Your task to perform on an android device: open app "DoorDash - Dasher" (install if not already installed) and enter user name: "resistor@inbox.com" and password: "cholera" Image 0: 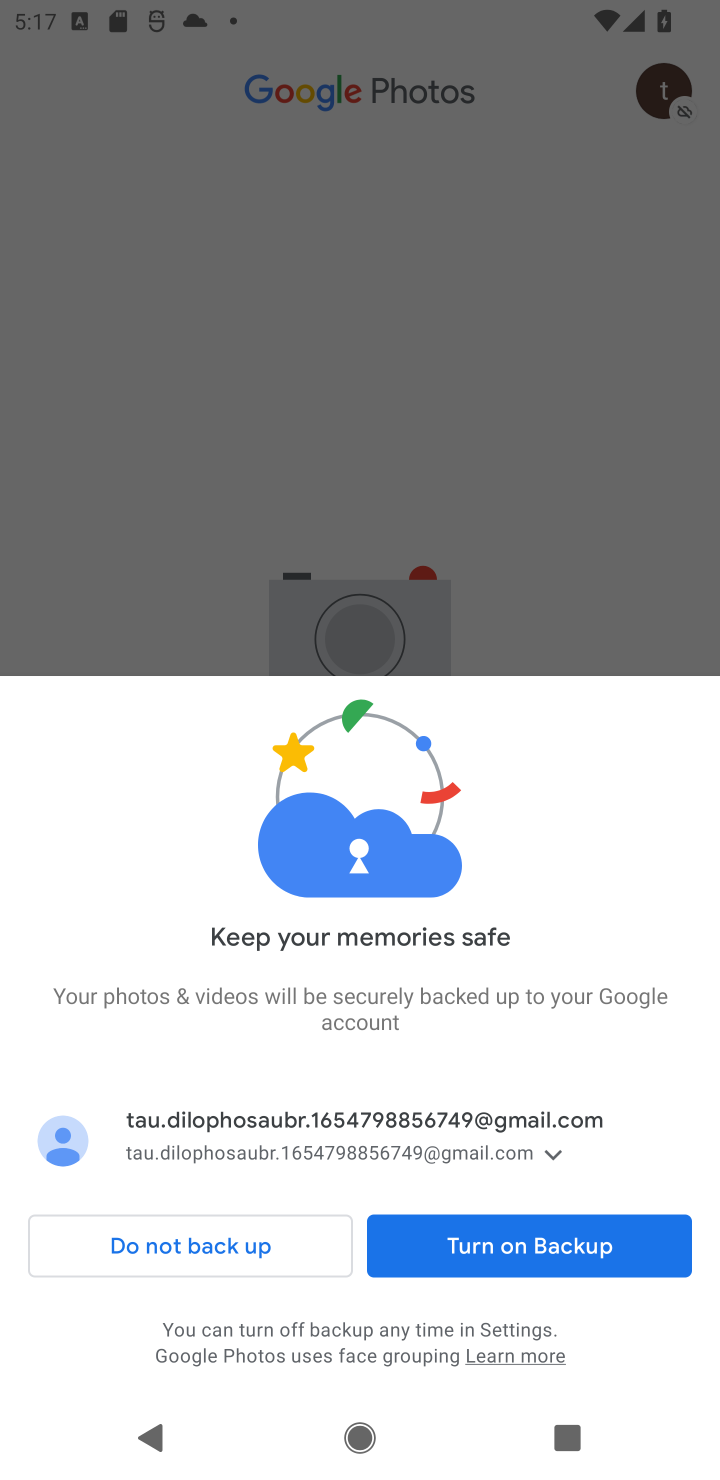
Step 0: press home button
Your task to perform on an android device: open app "DoorDash - Dasher" (install if not already installed) and enter user name: "resistor@inbox.com" and password: "cholera" Image 1: 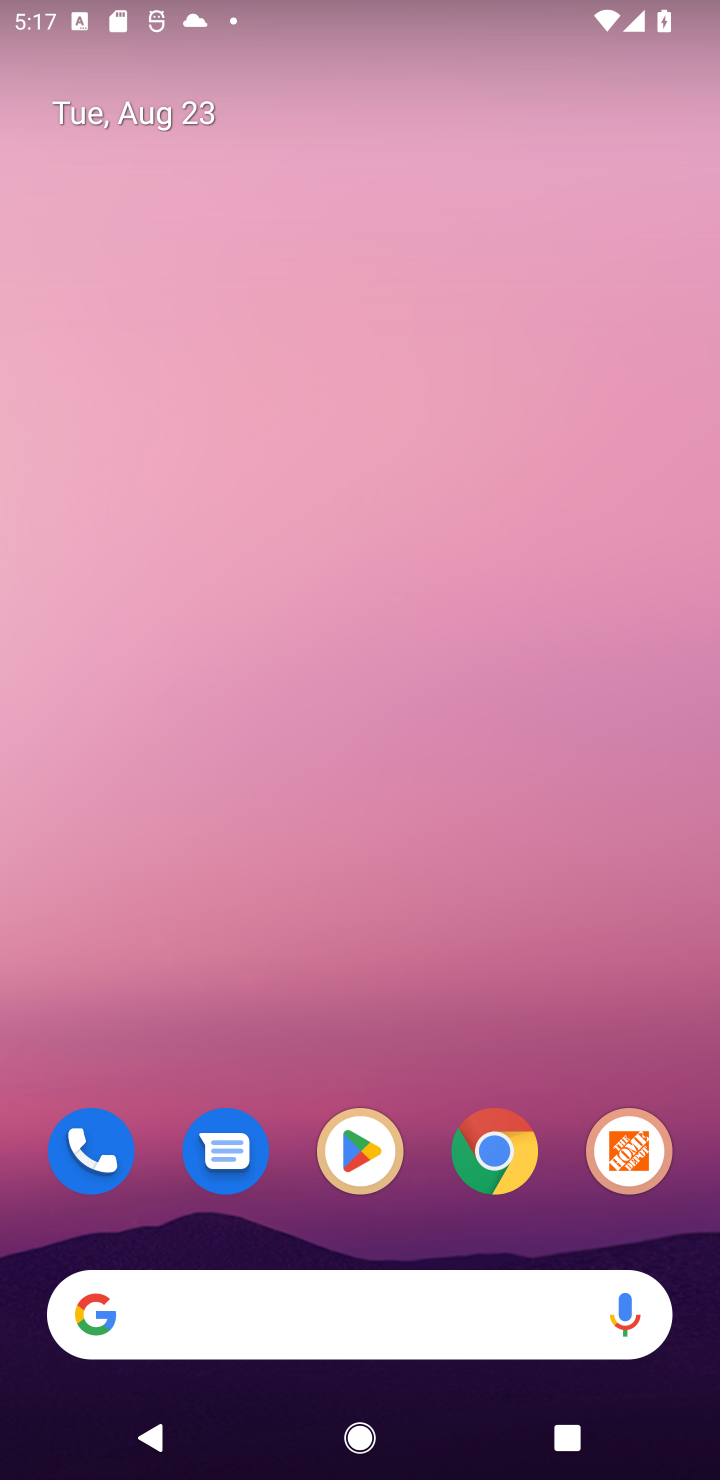
Step 1: click (370, 1149)
Your task to perform on an android device: open app "DoorDash - Dasher" (install if not already installed) and enter user name: "resistor@inbox.com" and password: "cholera" Image 2: 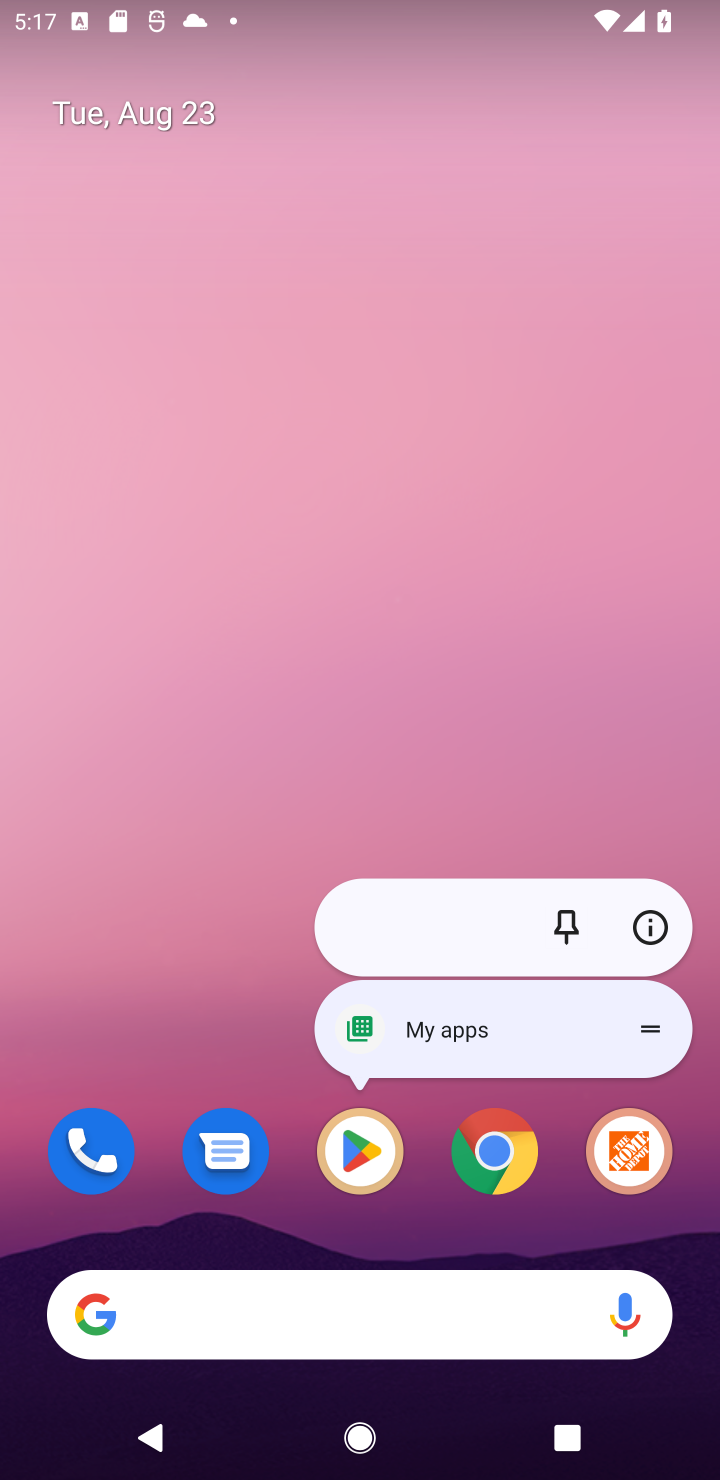
Step 2: click (351, 1158)
Your task to perform on an android device: open app "DoorDash - Dasher" (install if not already installed) and enter user name: "resistor@inbox.com" and password: "cholera" Image 3: 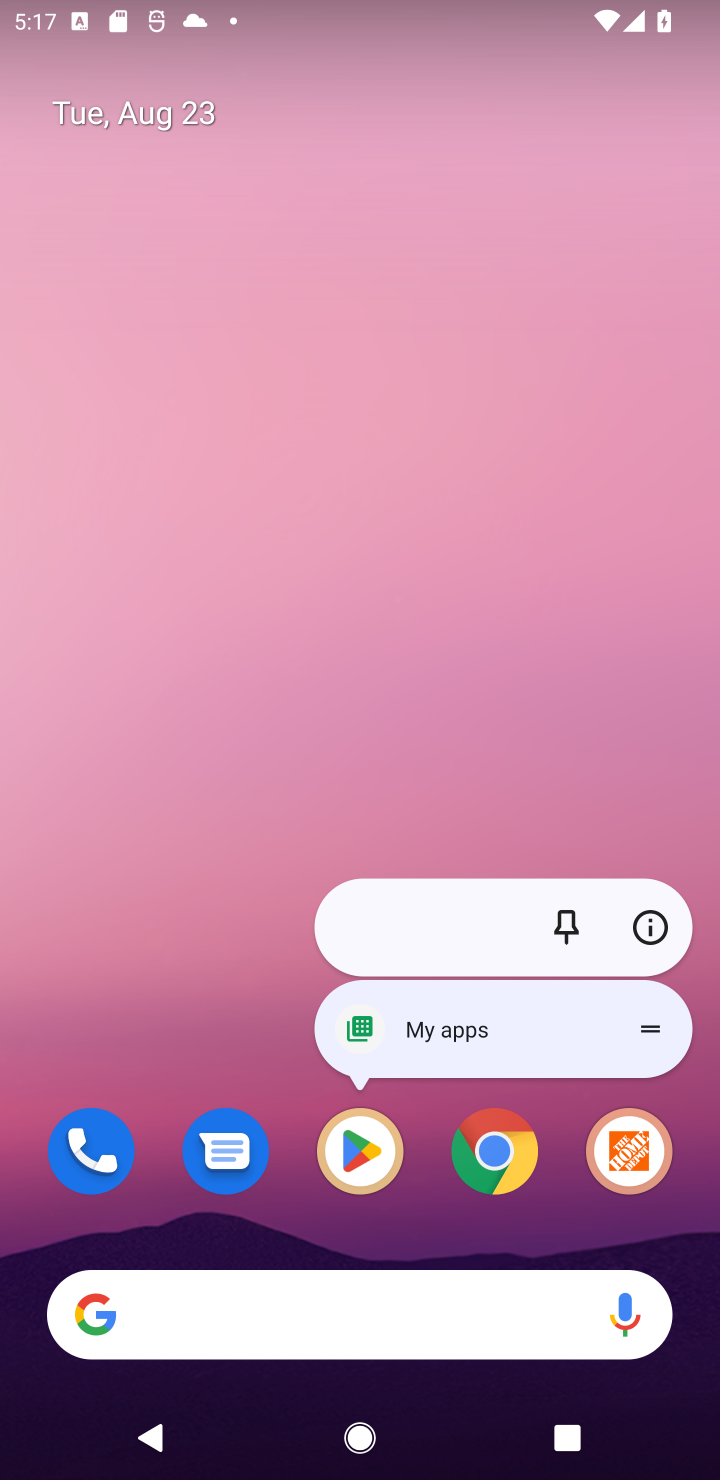
Step 3: click (351, 1162)
Your task to perform on an android device: open app "DoorDash - Dasher" (install if not already installed) and enter user name: "resistor@inbox.com" and password: "cholera" Image 4: 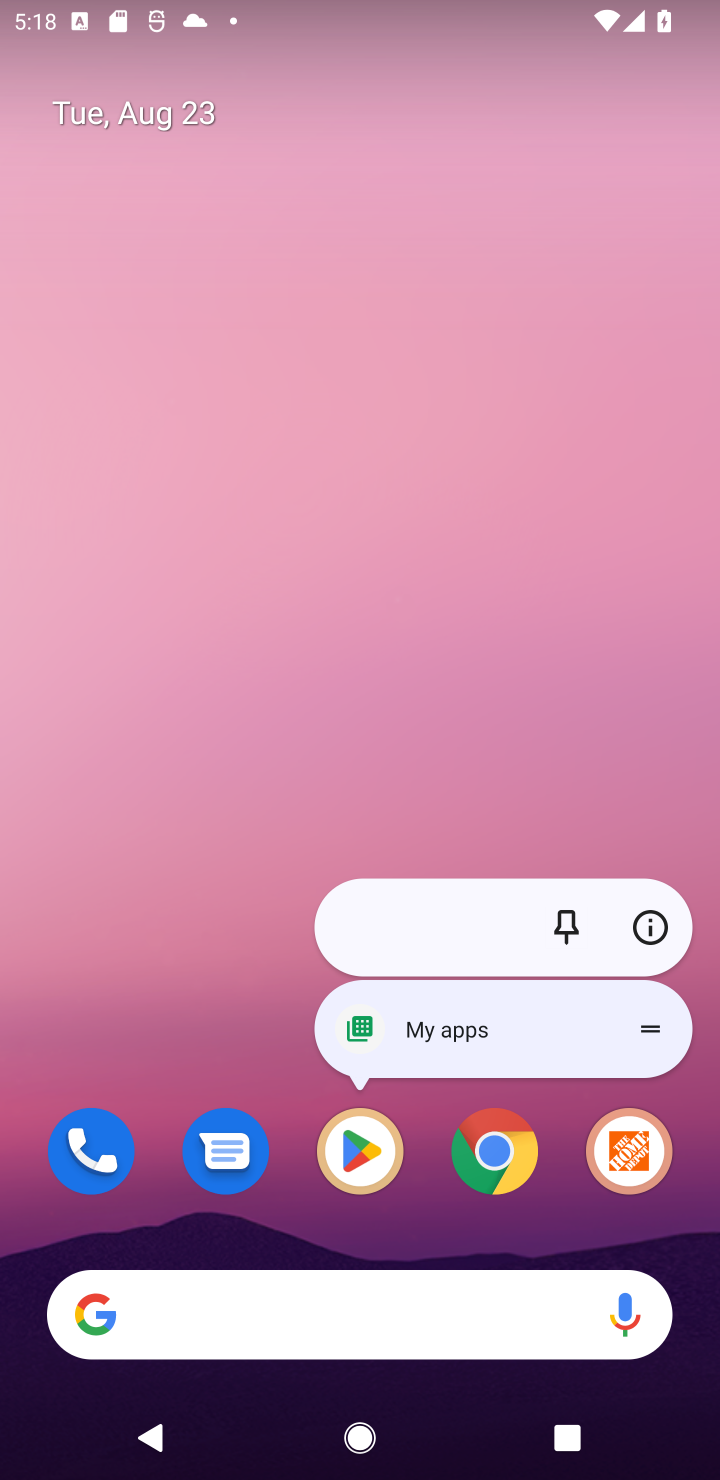
Step 4: click (351, 1162)
Your task to perform on an android device: open app "DoorDash - Dasher" (install if not already installed) and enter user name: "resistor@inbox.com" and password: "cholera" Image 5: 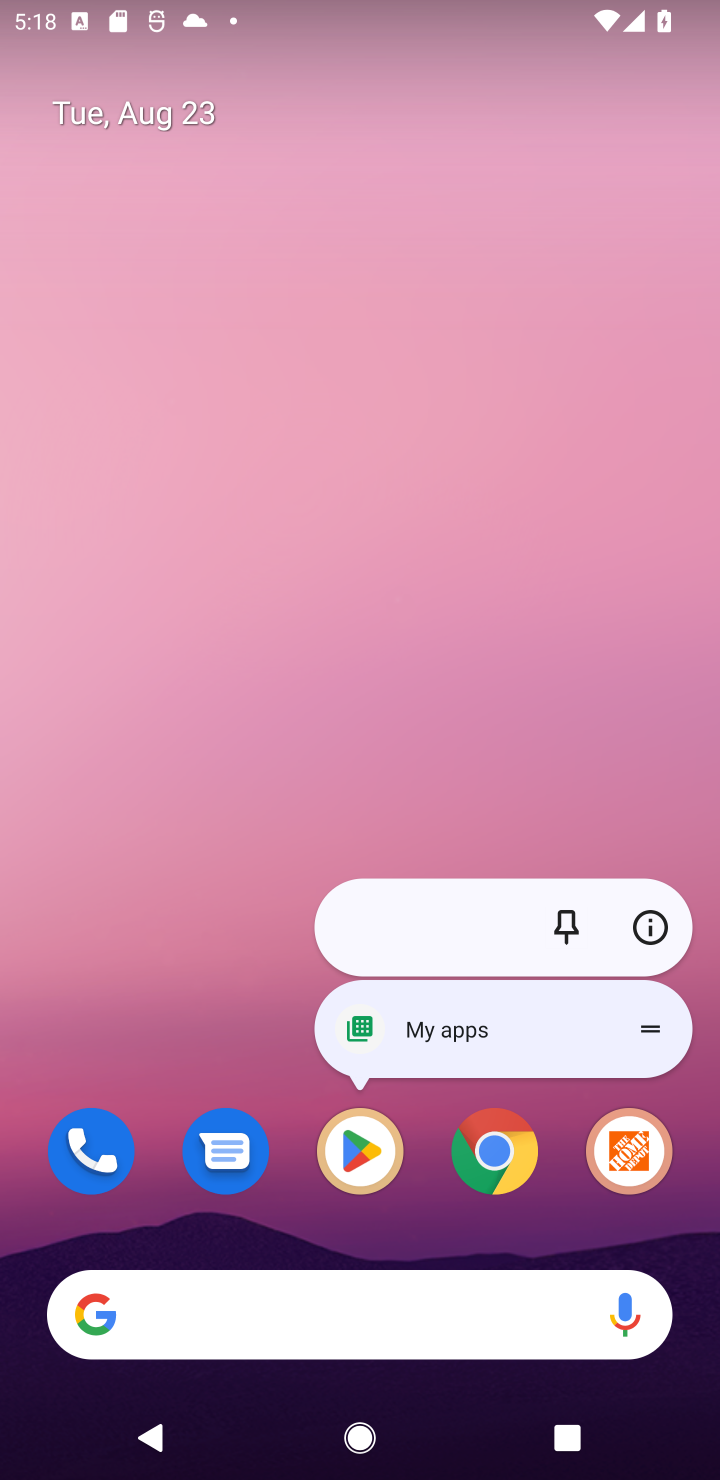
Step 5: click (356, 1154)
Your task to perform on an android device: open app "DoorDash - Dasher" (install if not already installed) and enter user name: "resistor@inbox.com" and password: "cholera" Image 6: 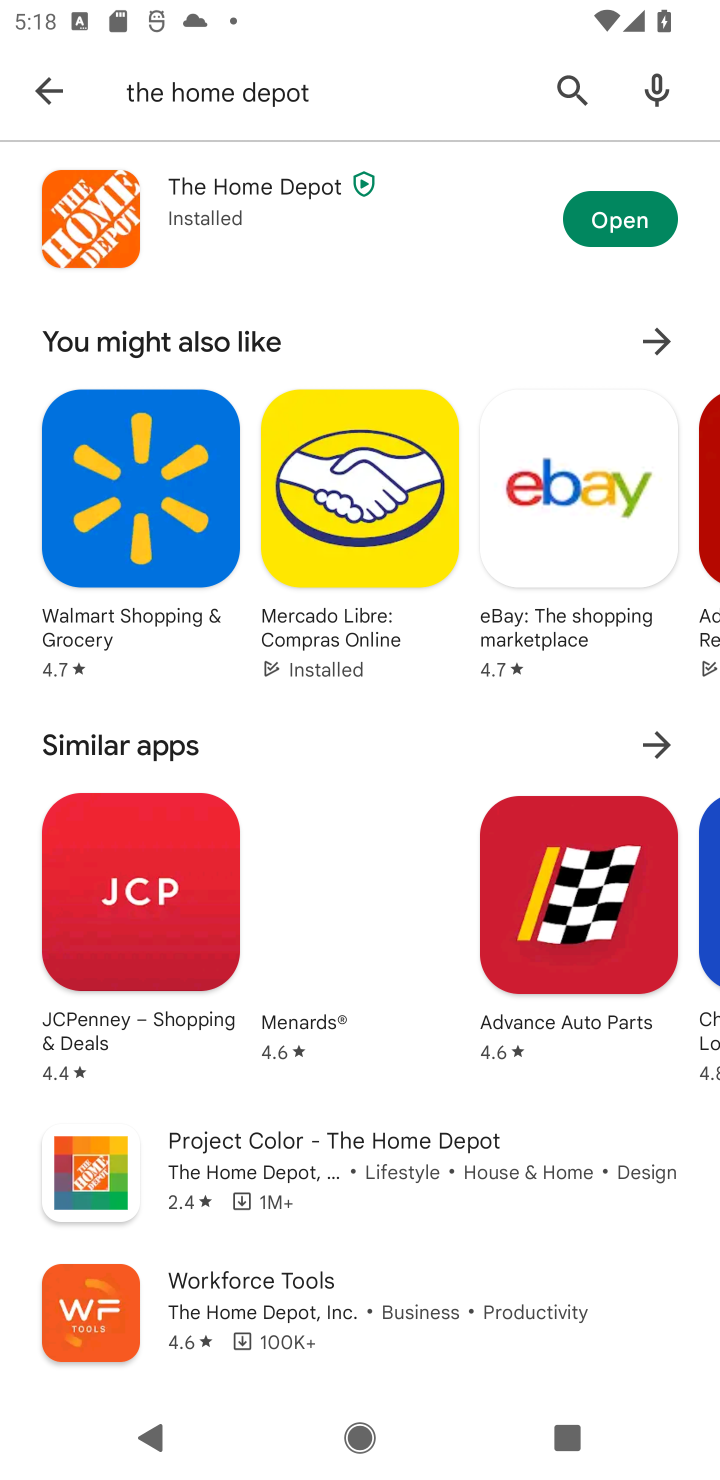
Step 6: click (560, 82)
Your task to perform on an android device: open app "DoorDash - Dasher" (install if not already installed) and enter user name: "resistor@inbox.com" and password: "cholera" Image 7: 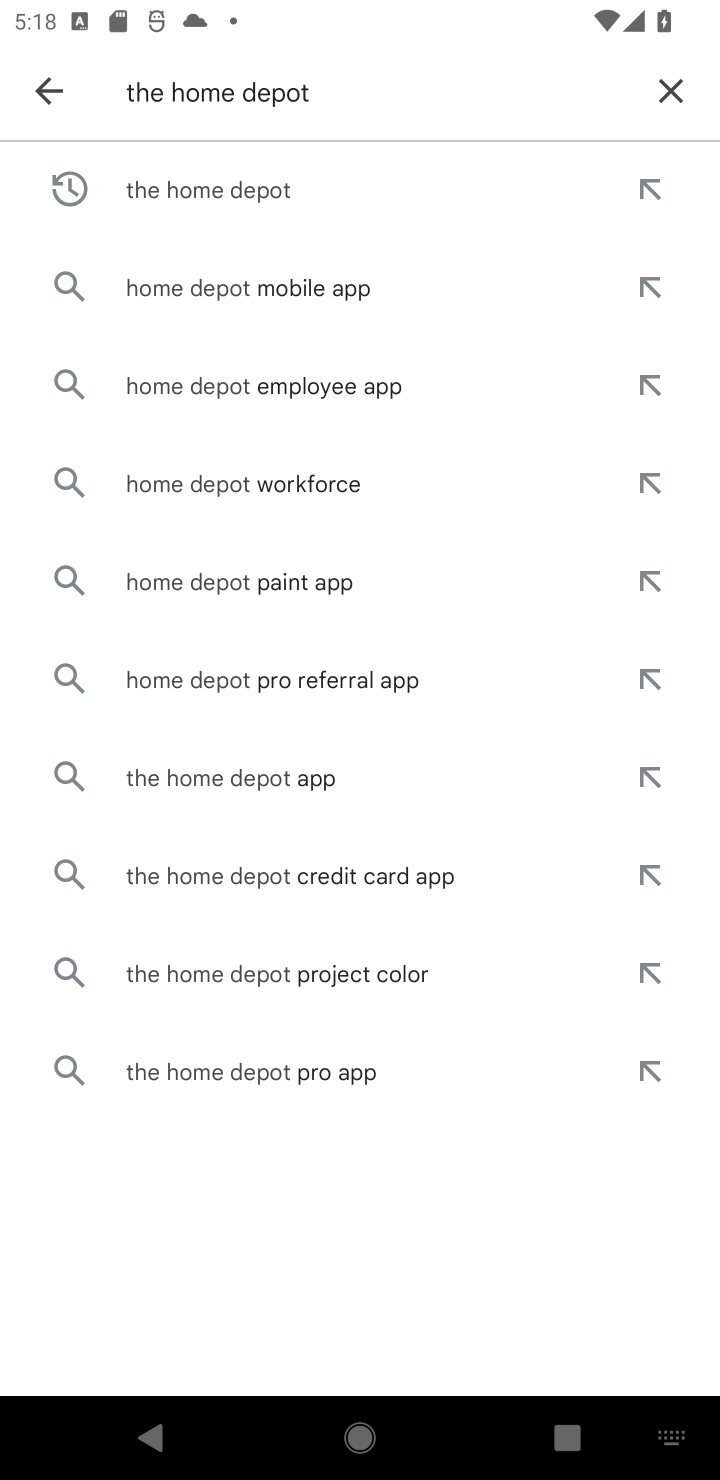
Step 7: click (668, 90)
Your task to perform on an android device: open app "DoorDash - Dasher" (install if not already installed) and enter user name: "resistor@inbox.com" and password: "cholera" Image 8: 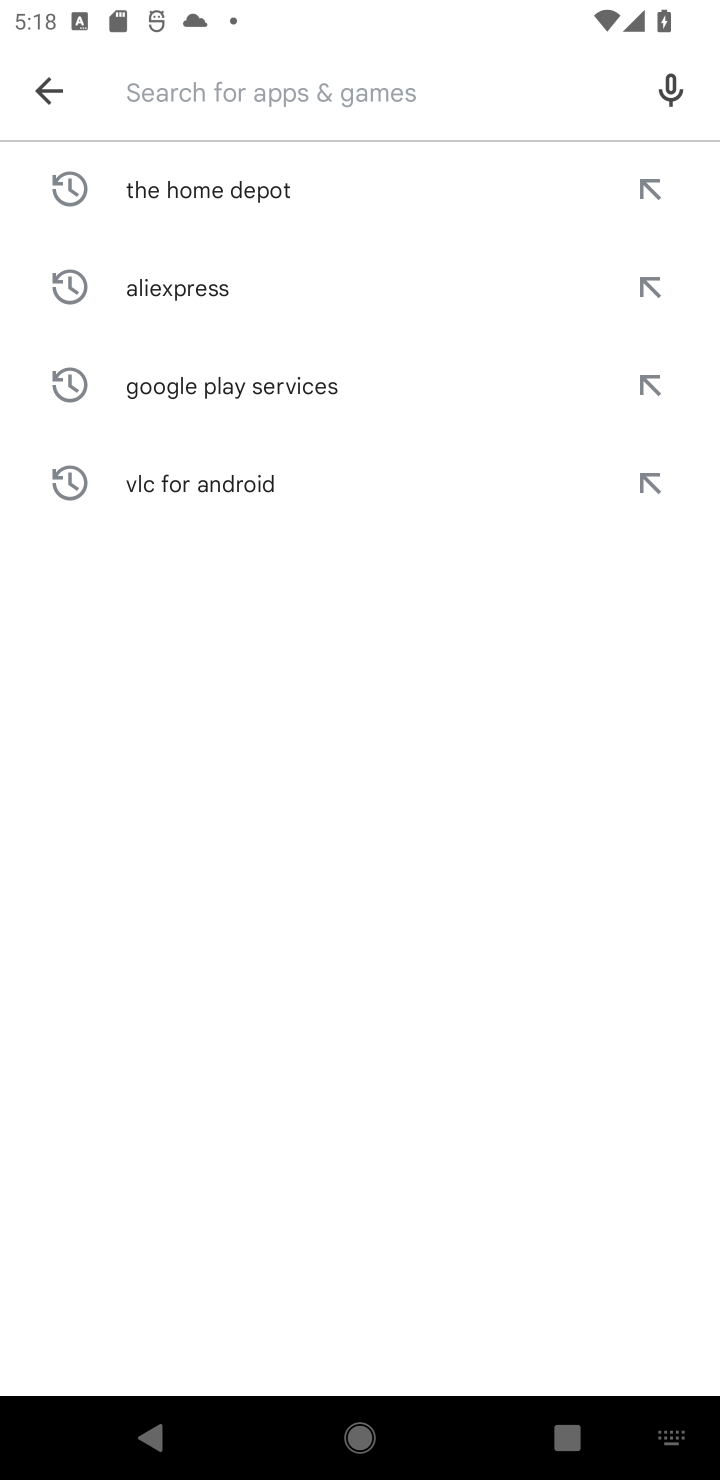
Step 8: type "DoorDash - Dasher"
Your task to perform on an android device: open app "DoorDash - Dasher" (install if not already installed) and enter user name: "resistor@inbox.com" and password: "cholera" Image 9: 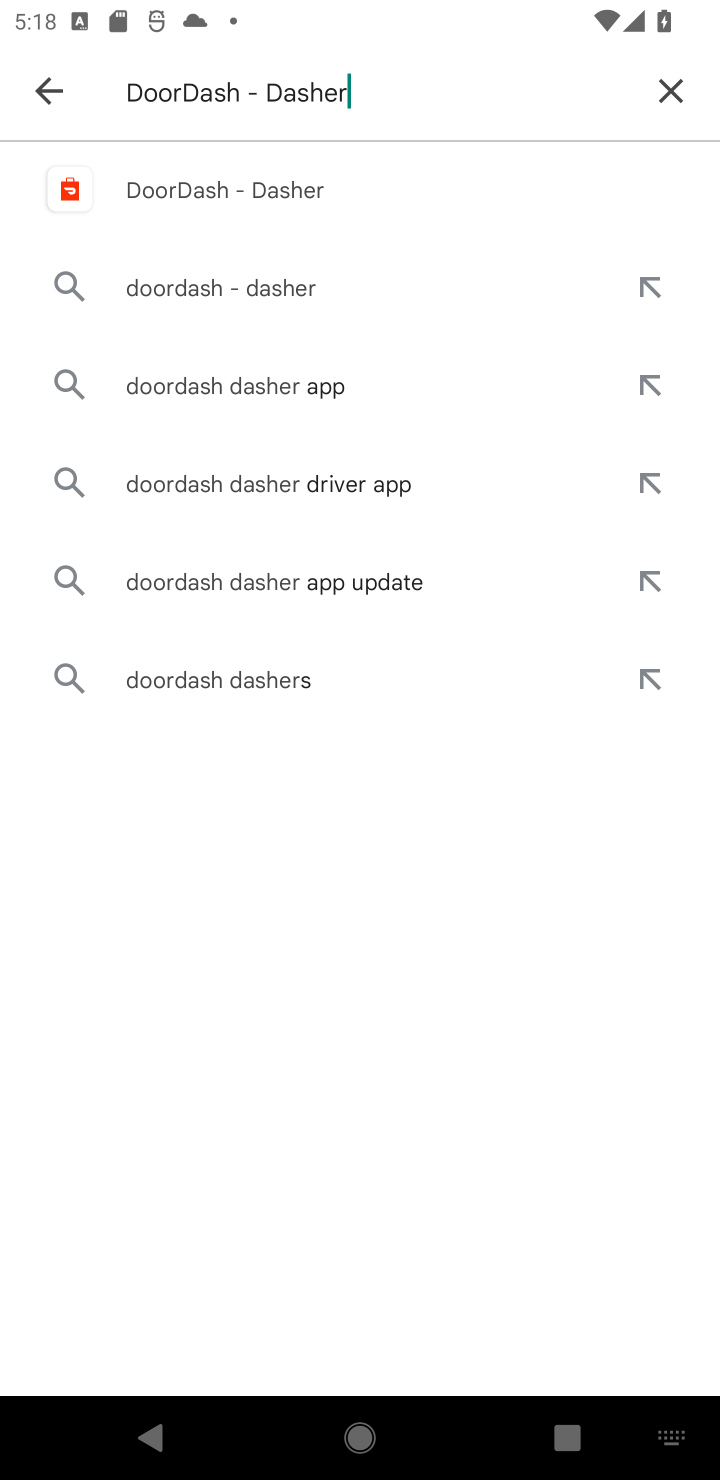
Step 9: click (242, 198)
Your task to perform on an android device: open app "DoorDash - Dasher" (install if not already installed) and enter user name: "resistor@inbox.com" and password: "cholera" Image 10: 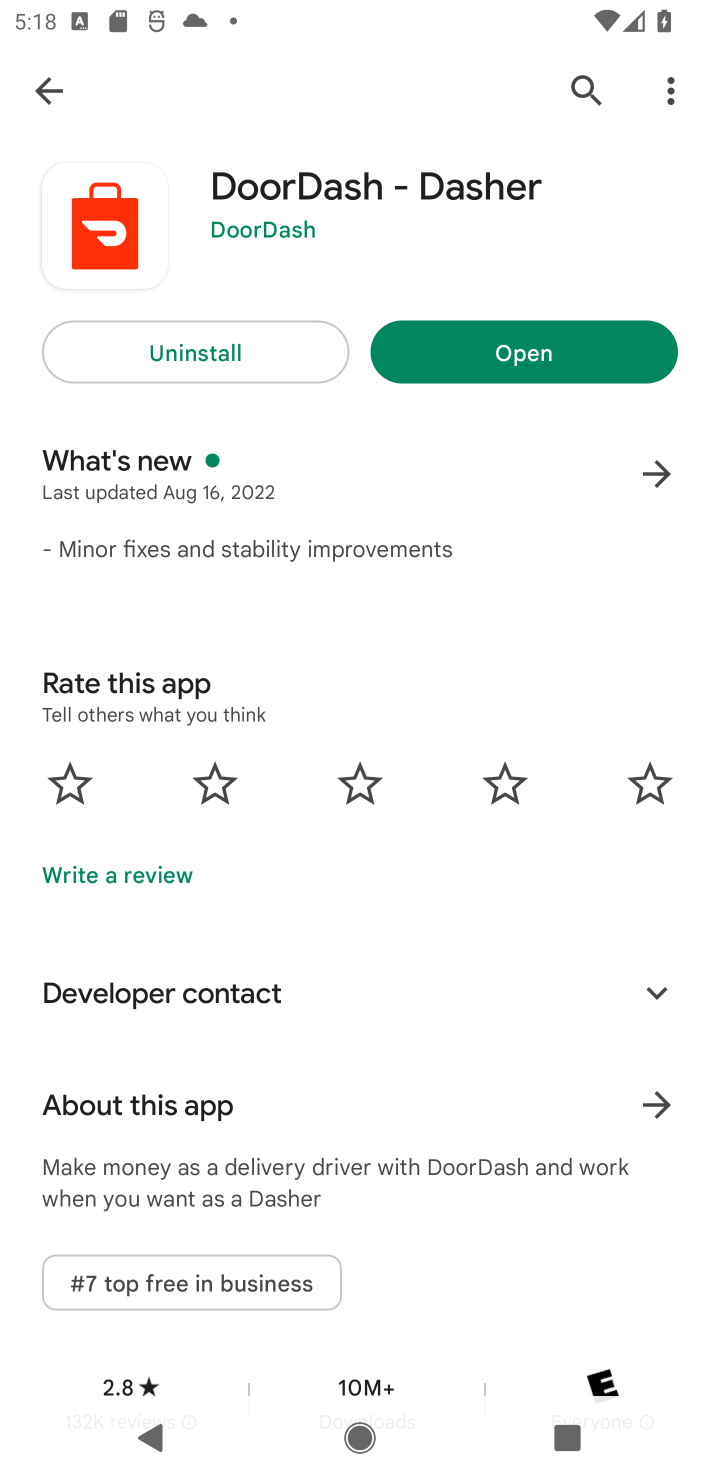
Step 10: click (560, 341)
Your task to perform on an android device: open app "DoorDash - Dasher" (install if not already installed) and enter user name: "resistor@inbox.com" and password: "cholera" Image 11: 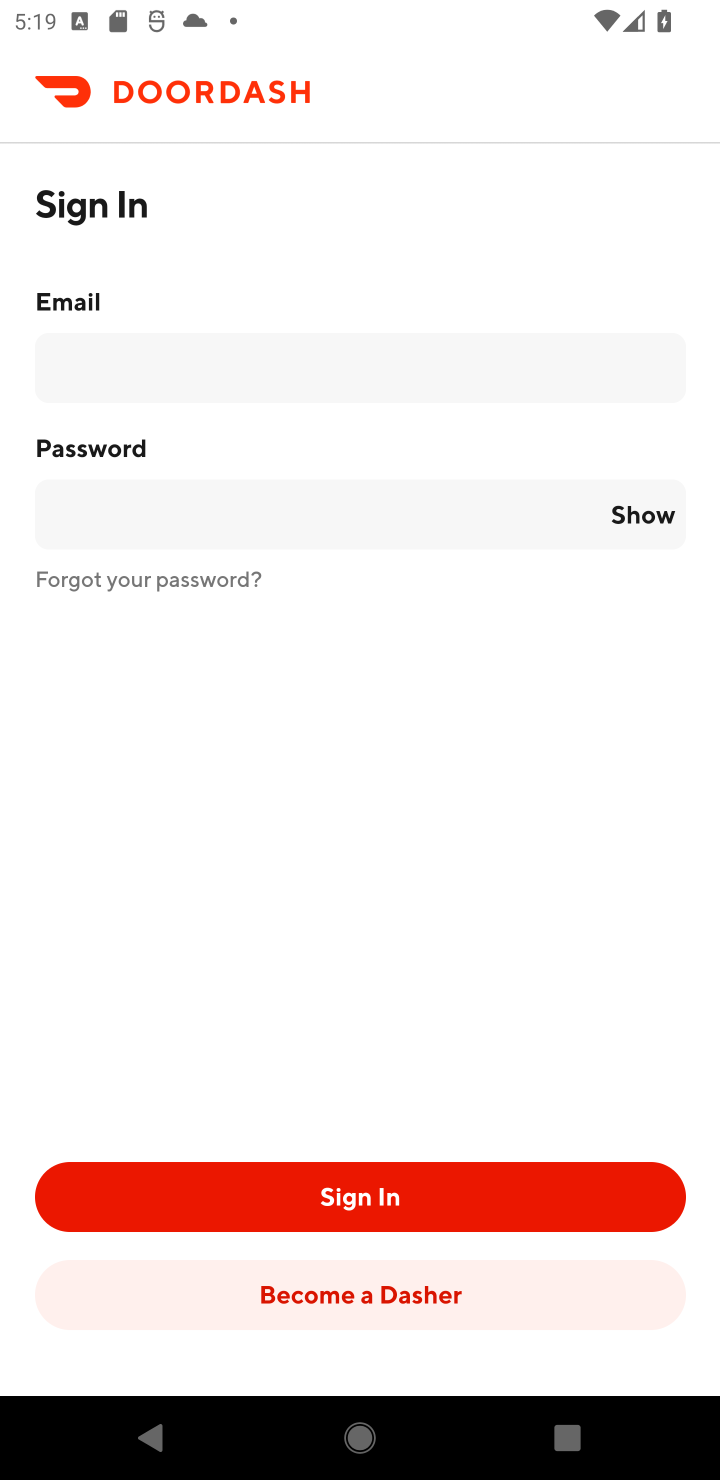
Step 11: click (111, 305)
Your task to perform on an android device: open app "DoorDash - Dasher" (install if not already installed) and enter user name: "resistor@inbox.com" and password: "cholera" Image 12: 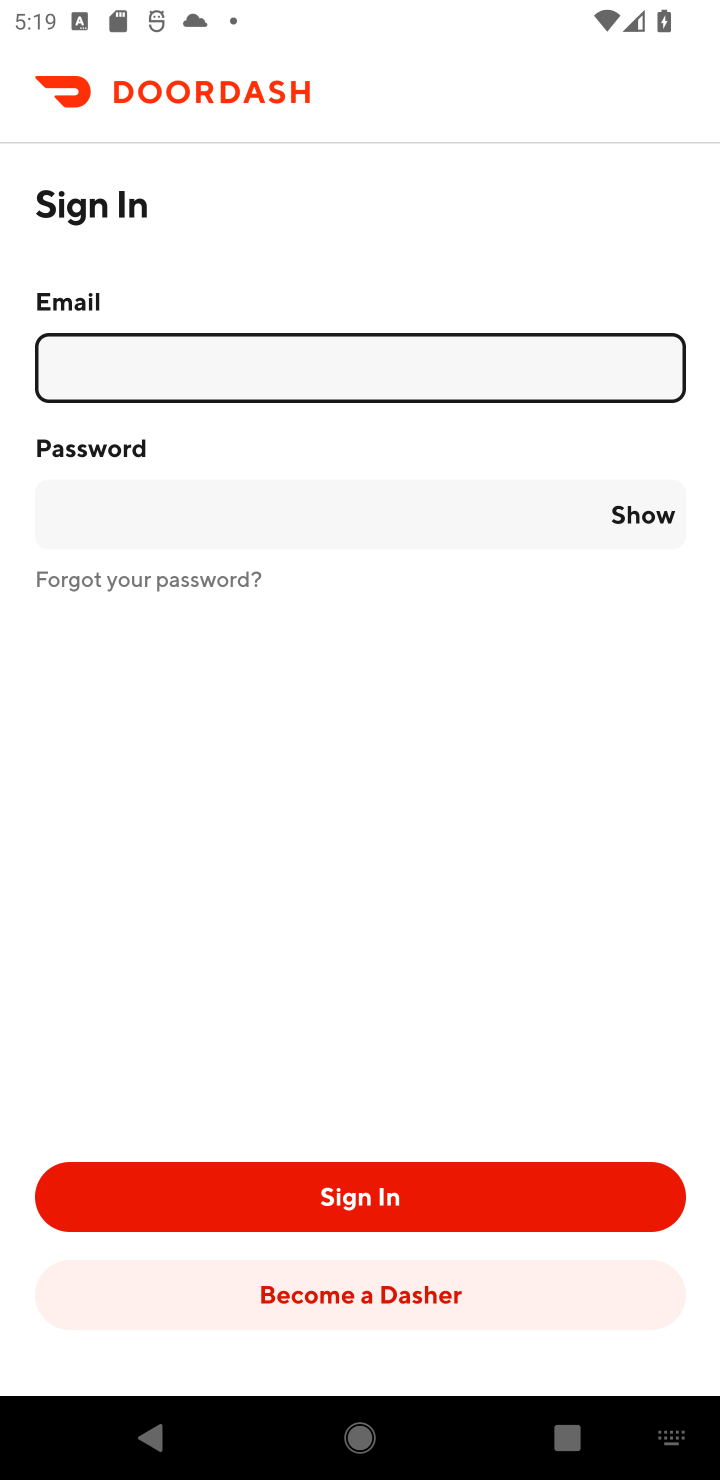
Step 12: type "resistor@inbox.com"
Your task to perform on an android device: open app "DoorDash - Dasher" (install if not already installed) and enter user name: "resistor@inbox.com" and password: "cholera" Image 13: 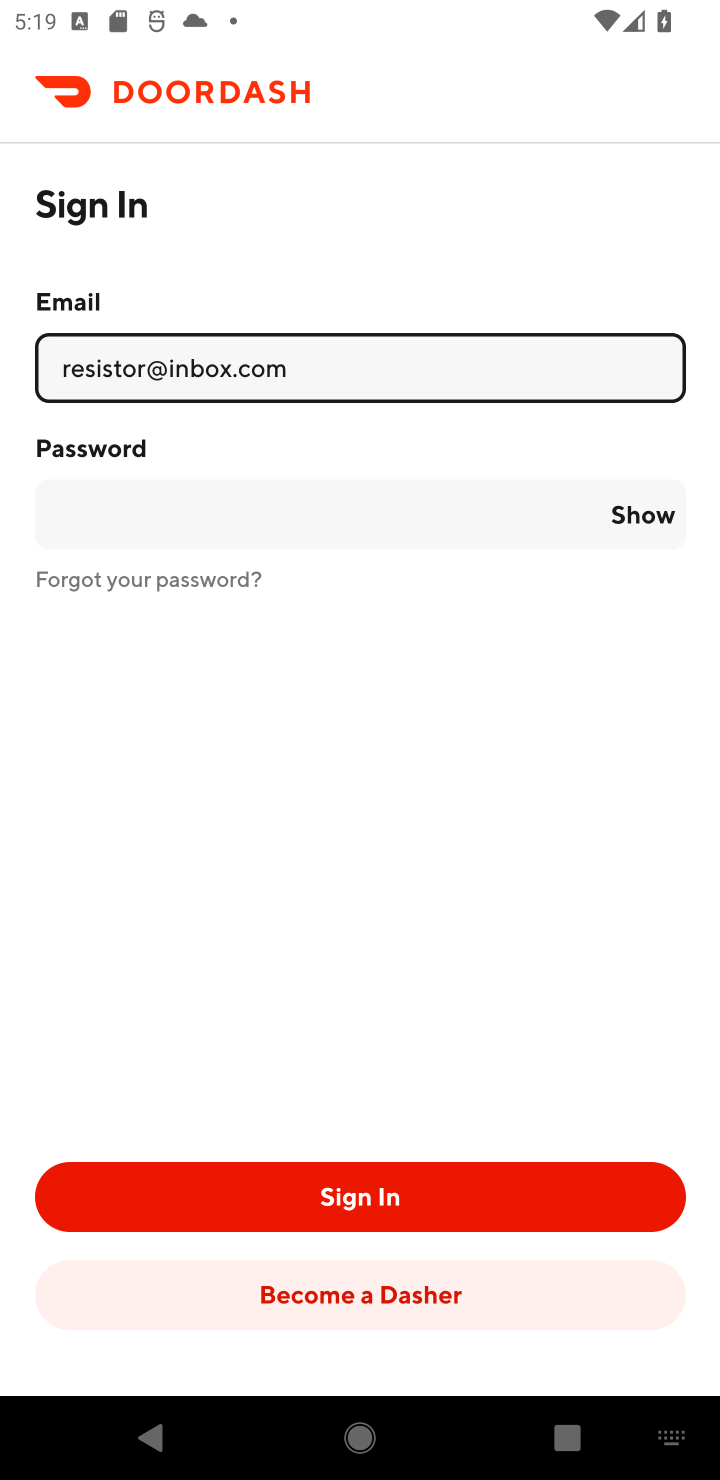
Step 13: click (171, 587)
Your task to perform on an android device: open app "DoorDash - Dasher" (install if not already installed) and enter user name: "resistor@inbox.com" and password: "cholera" Image 14: 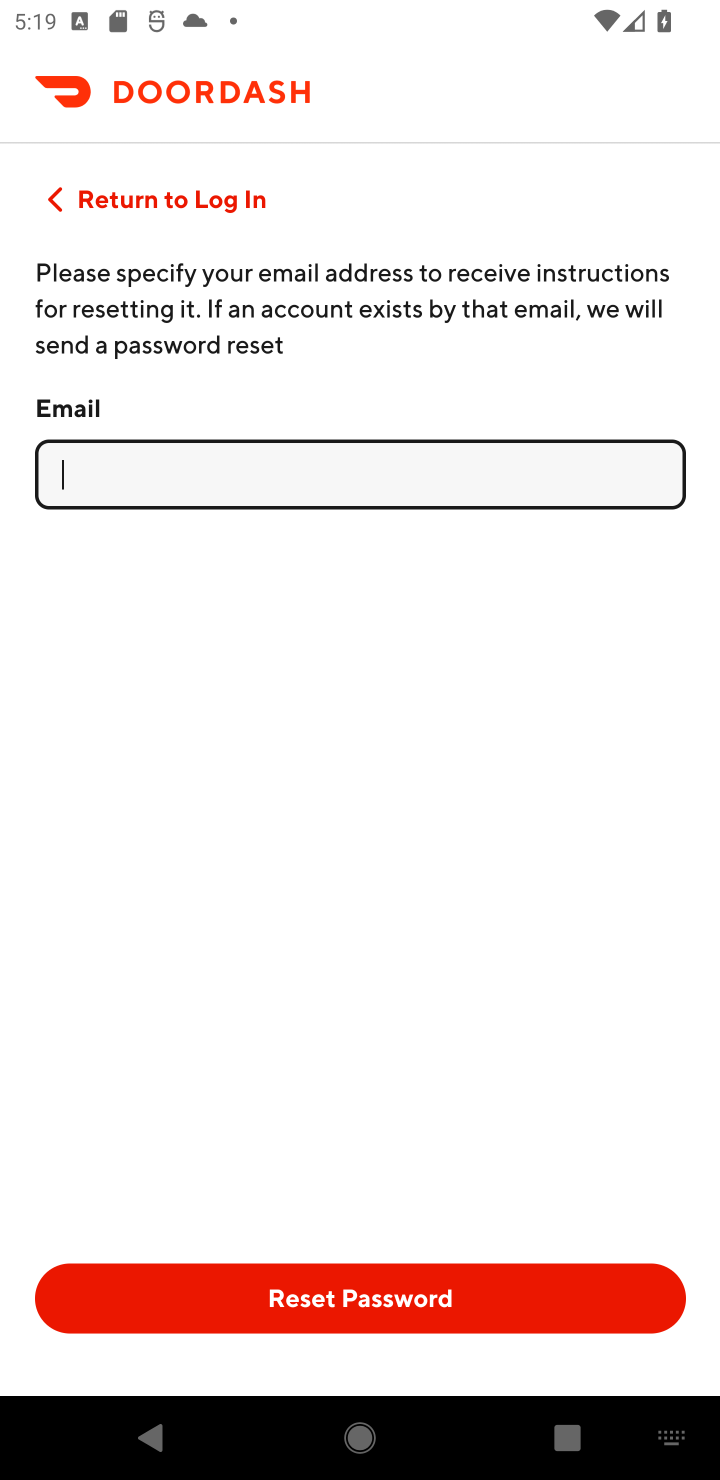
Step 14: type "cholera"
Your task to perform on an android device: open app "DoorDash - Dasher" (install if not already installed) and enter user name: "resistor@inbox.com" and password: "cholera" Image 15: 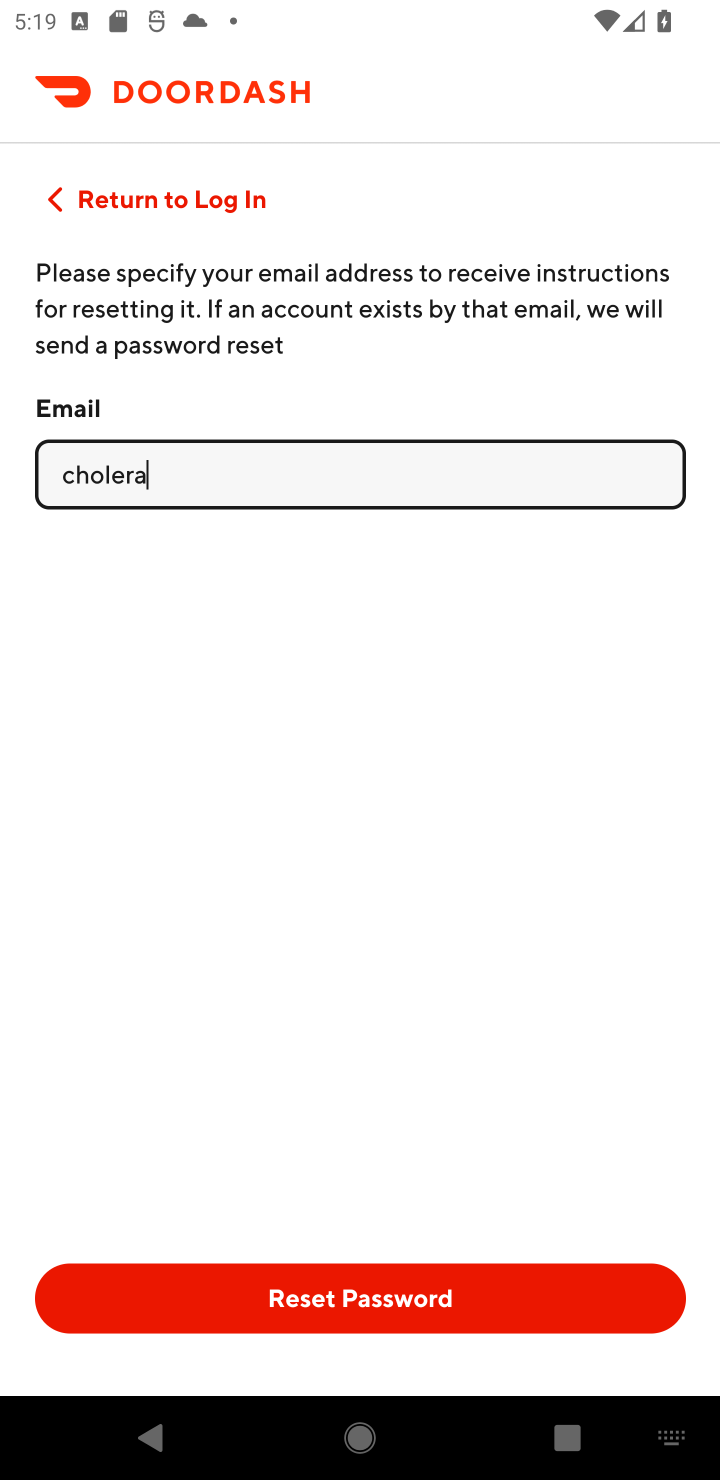
Step 15: task complete